Your task to perform on an android device: Open wifi settings Image 0: 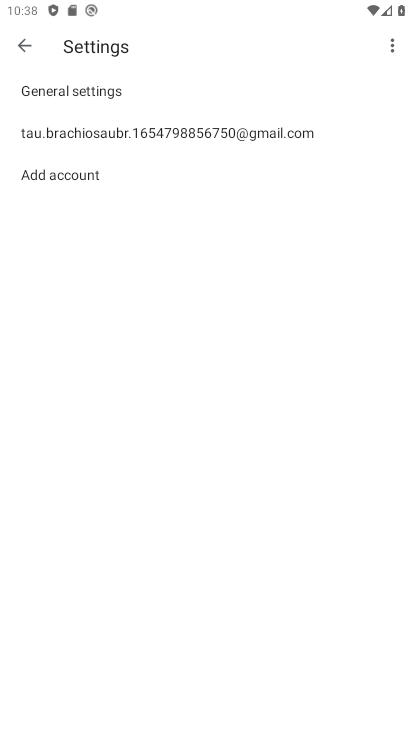
Step 0: press home button
Your task to perform on an android device: Open wifi settings Image 1: 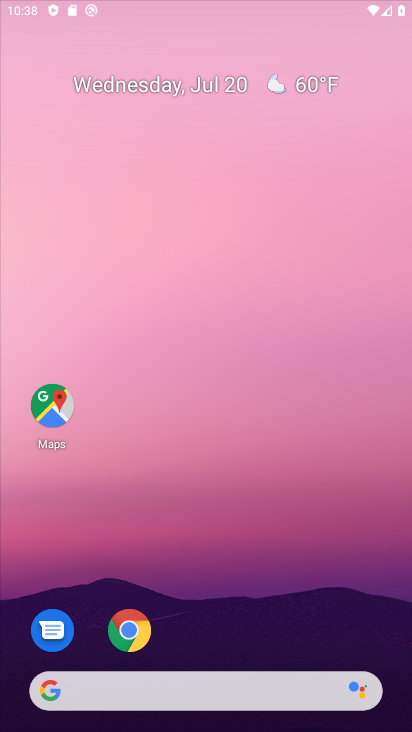
Step 1: drag from (204, 633) to (193, 148)
Your task to perform on an android device: Open wifi settings Image 2: 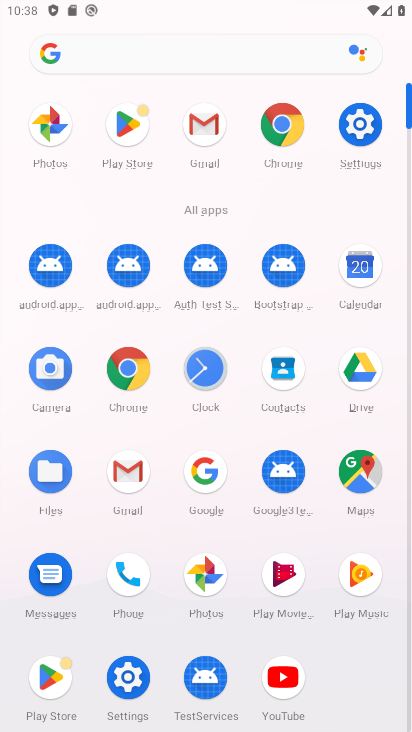
Step 2: click (359, 125)
Your task to perform on an android device: Open wifi settings Image 3: 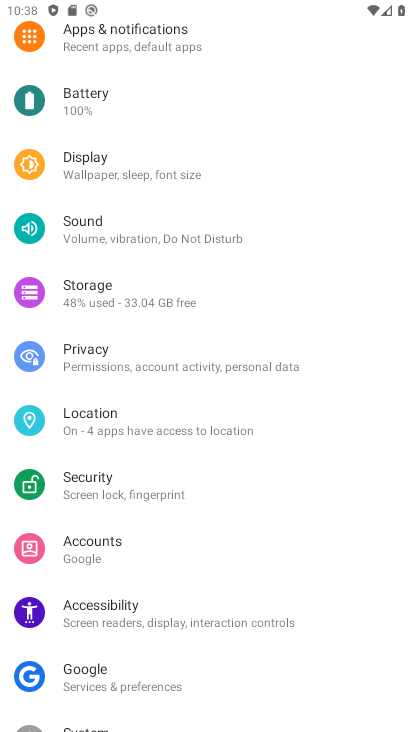
Step 3: drag from (183, 164) to (227, 629)
Your task to perform on an android device: Open wifi settings Image 4: 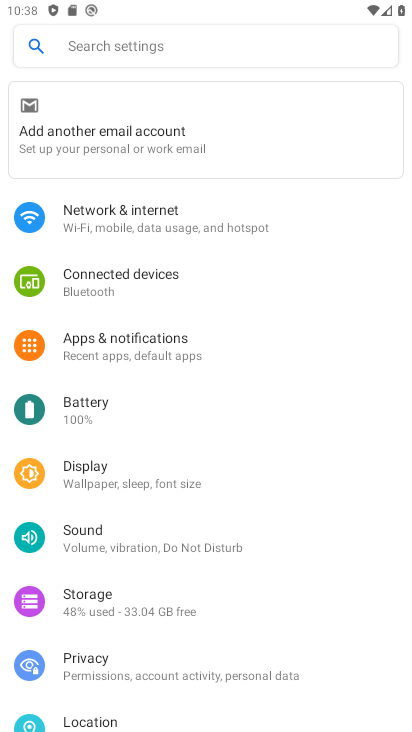
Step 4: click (136, 225)
Your task to perform on an android device: Open wifi settings Image 5: 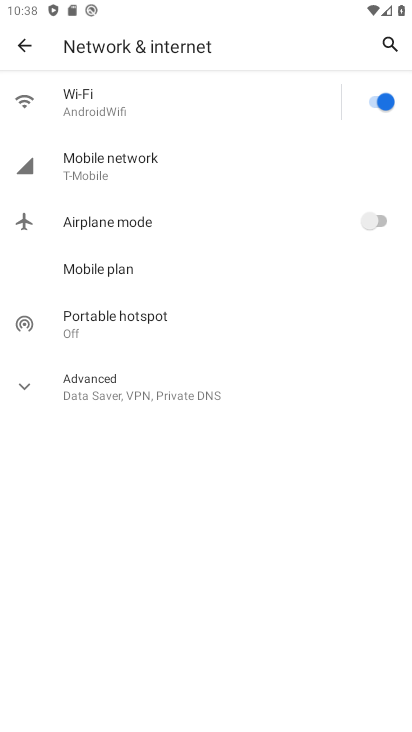
Step 5: click (127, 99)
Your task to perform on an android device: Open wifi settings Image 6: 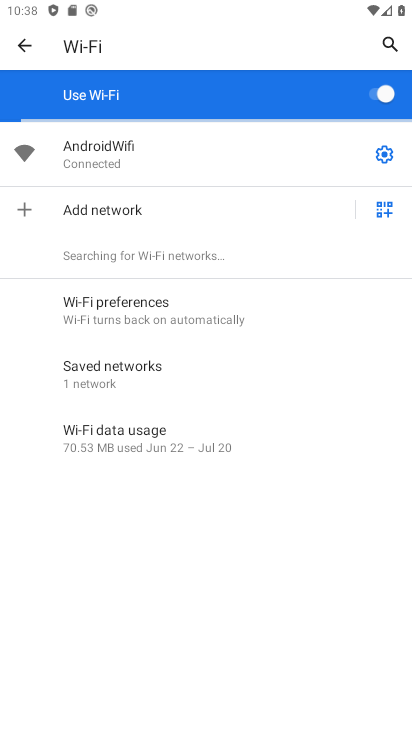
Step 6: click (189, 151)
Your task to perform on an android device: Open wifi settings Image 7: 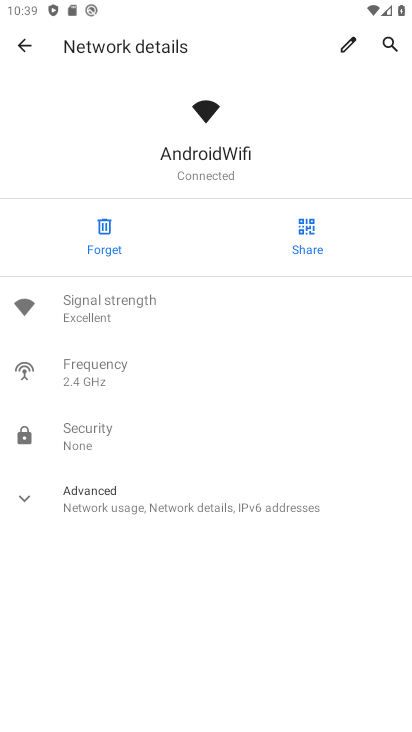
Step 7: task complete